Your task to perform on an android device: turn on priority inbox in the gmail app Image 0: 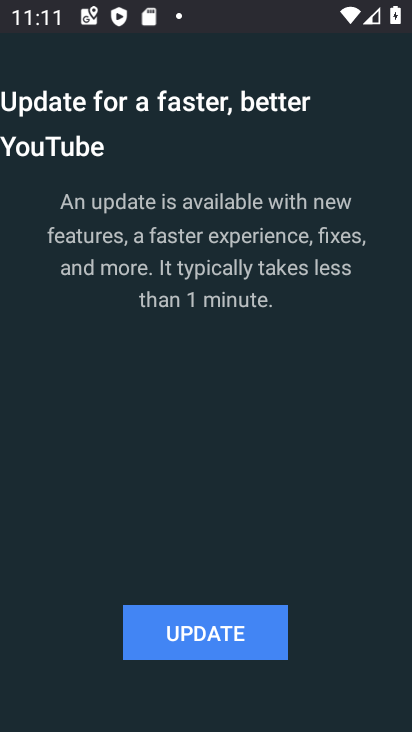
Step 0: press home button
Your task to perform on an android device: turn on priority inbox in the gmail app Image 1: 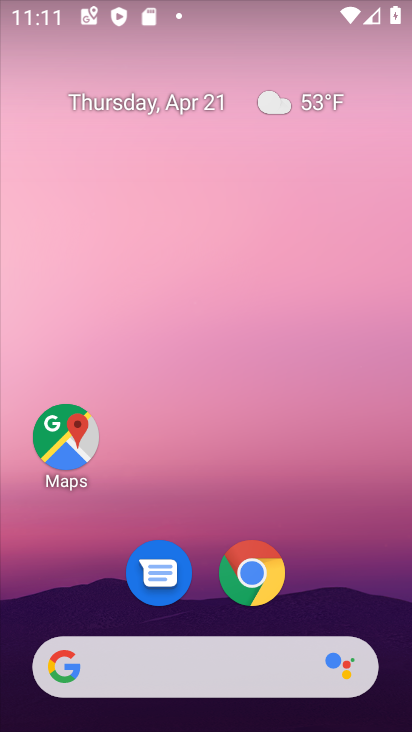
Step 1: drag from (342, 573) to (369, 119)
Your task to perform on an android device: turn on priority inbox in the gmail app Image 2: 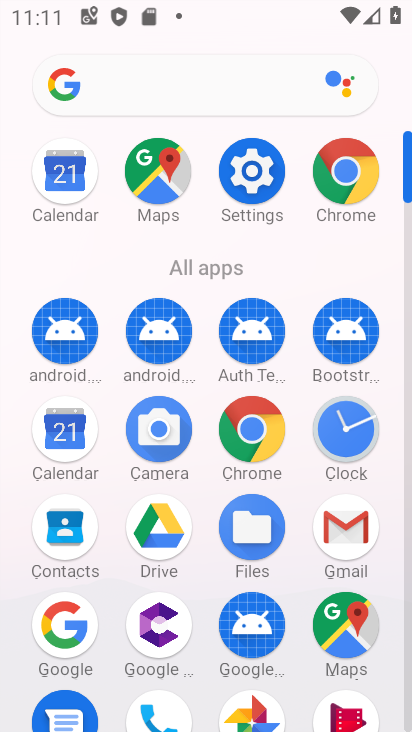
Step 2: click (354, 518)
Your task to perform on an android device: turn on priority inbox in the gmail app Image 3: 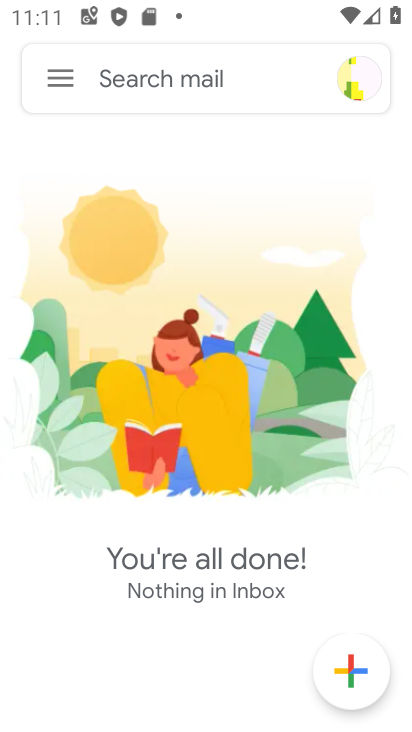
Step 3: click (55, 75)
Your task to perform on an android device: turn on priority inbox in the gmail app Image 4: 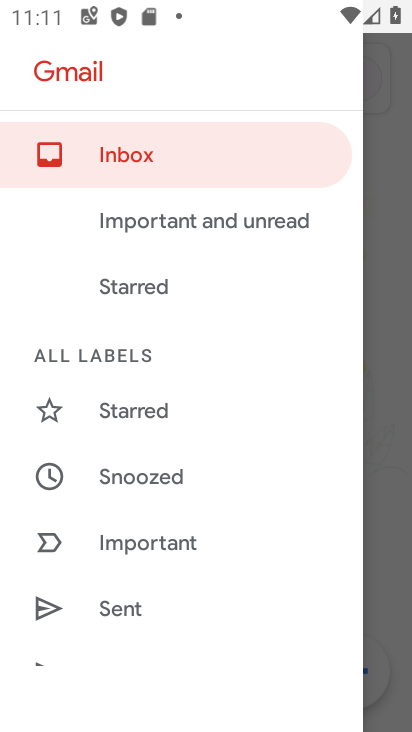
Step 4: drag from (245, 541) to (288, 103)
Your task to perform on an android device: turn on priority inbox in the gmail app Image 5: 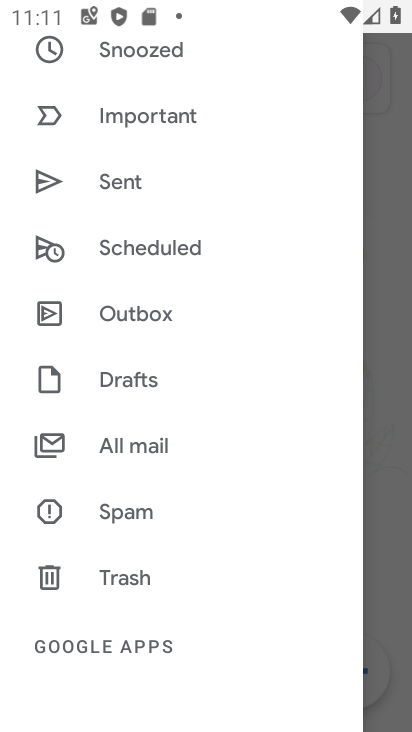
Step 5: drag from (248, 440) to (298, 170)
Your task to perform on an android device: turn on priority inbox in the gmail app Image 6: 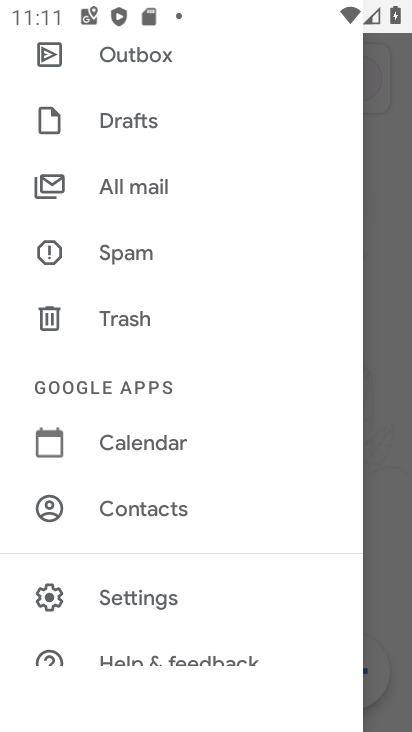
Step 6: click (126, 595)
Your task to perform on an android device: turn on priority inbox in the gmail app Image 7: 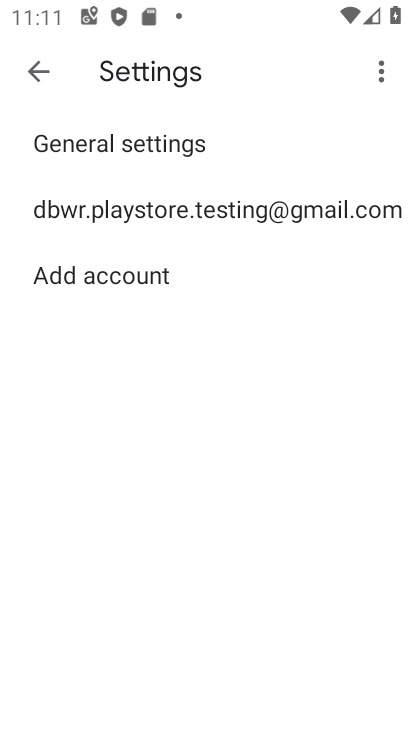
Step 7: click (220, 209)
Your task to perform on an android device: turn on priority inbox in the gmail app Image 8: 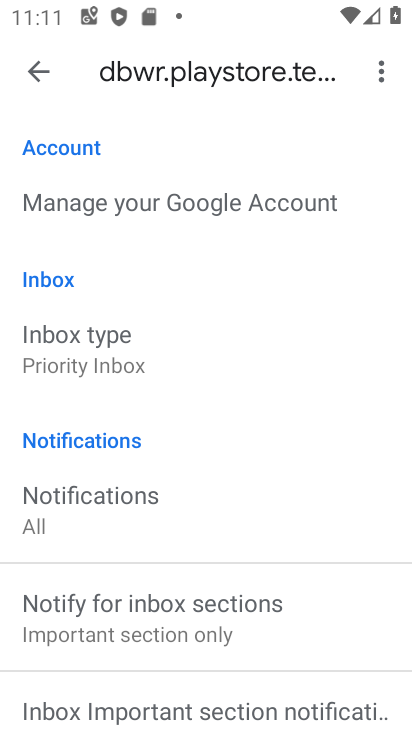
Step 8: drag from (338, 613) to (315, 270)
Your task to perform on an android device: turn on priority inbox in the gmail app Image 9: 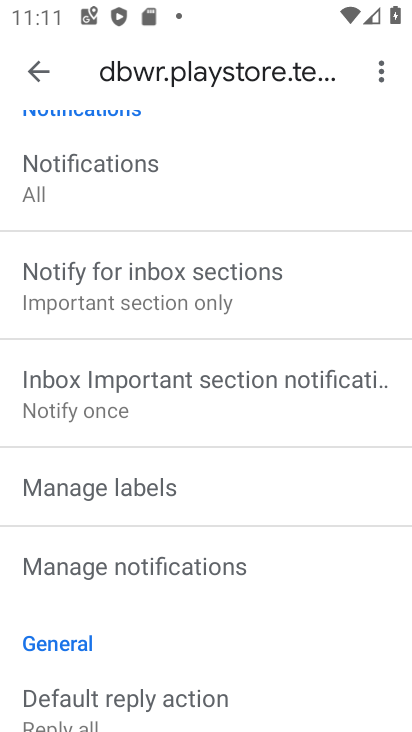
Step 9: drag from (307, 240) to (352, 642)
Your task to perform on an android device: turn on priority inbox in the gmail app Image 10: 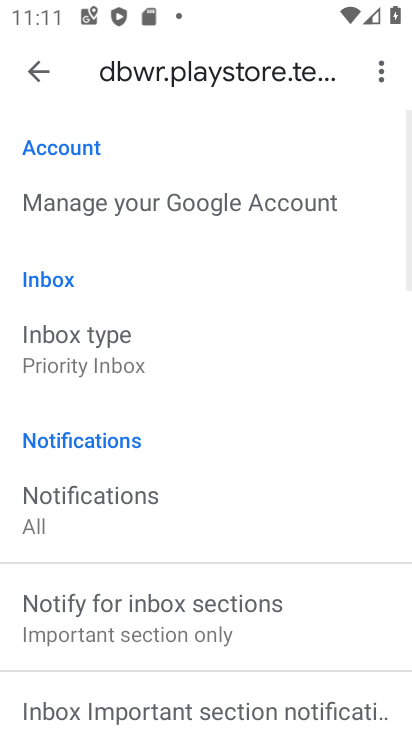
Step 10: click (89, 343)
Your task to perform on an android device: turn on priority inbox in the gmail app Image 11: 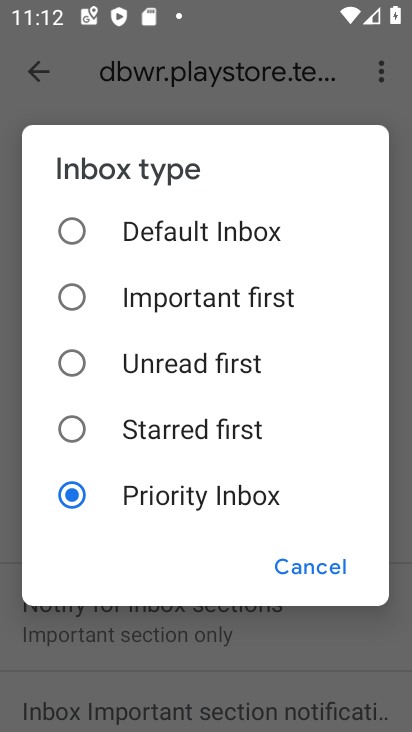
Step 11: click (207, 491)
Your task to perform on an android device: turn on priority inbox in the gmail app Image 12: 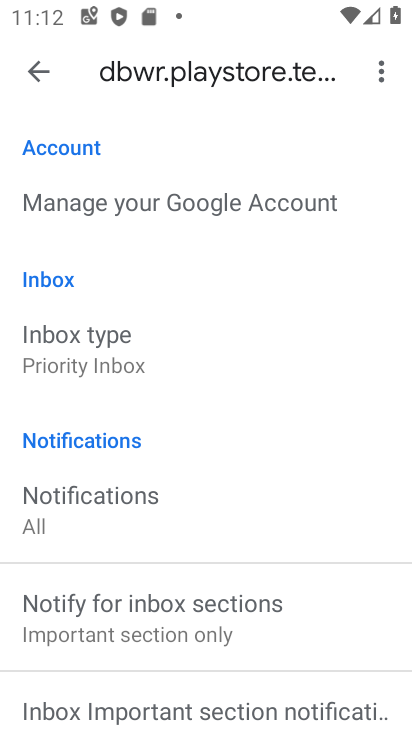
Step 12: task complete